Your task to perform on an android device: open chrome privacy settings Image 0: 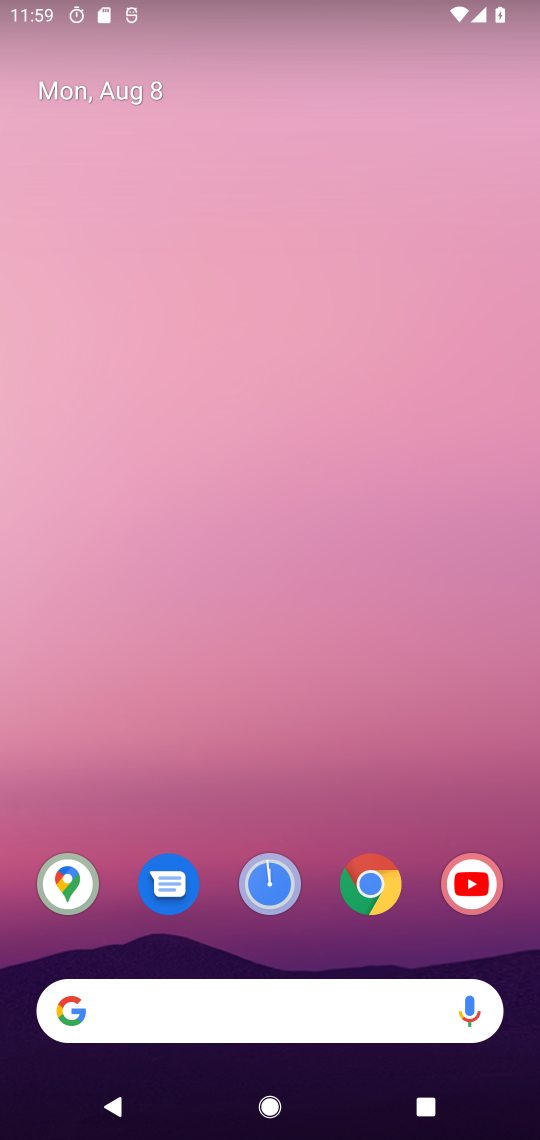
Step 0: click (376, 884)
Your task to perform on an android device: open chrome privacy settings Image 1: 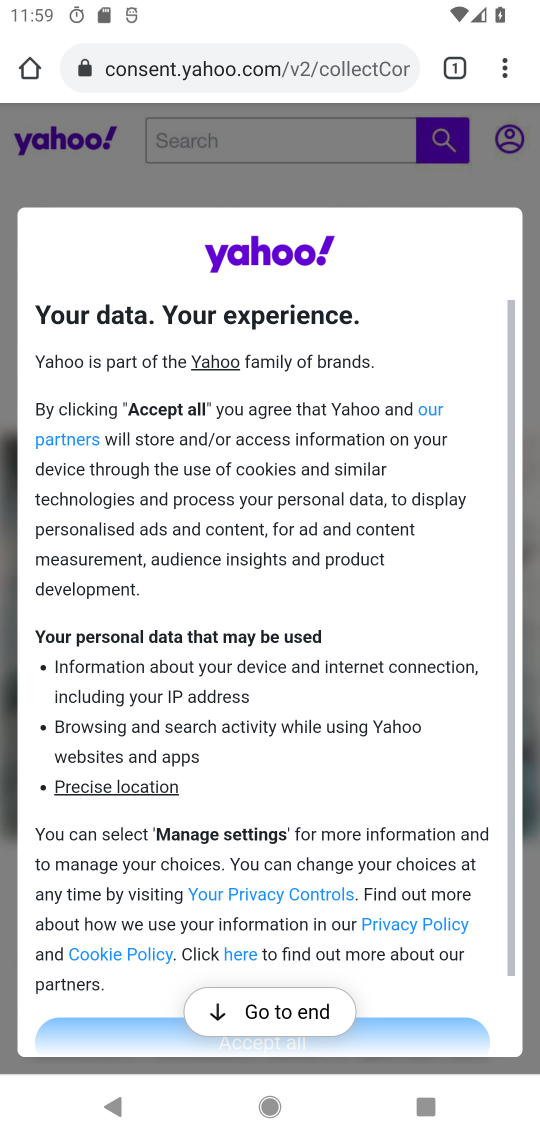
Step 1: click (502, 66)
Your task to perform on an android device: open chrome privacy settings Image 2: 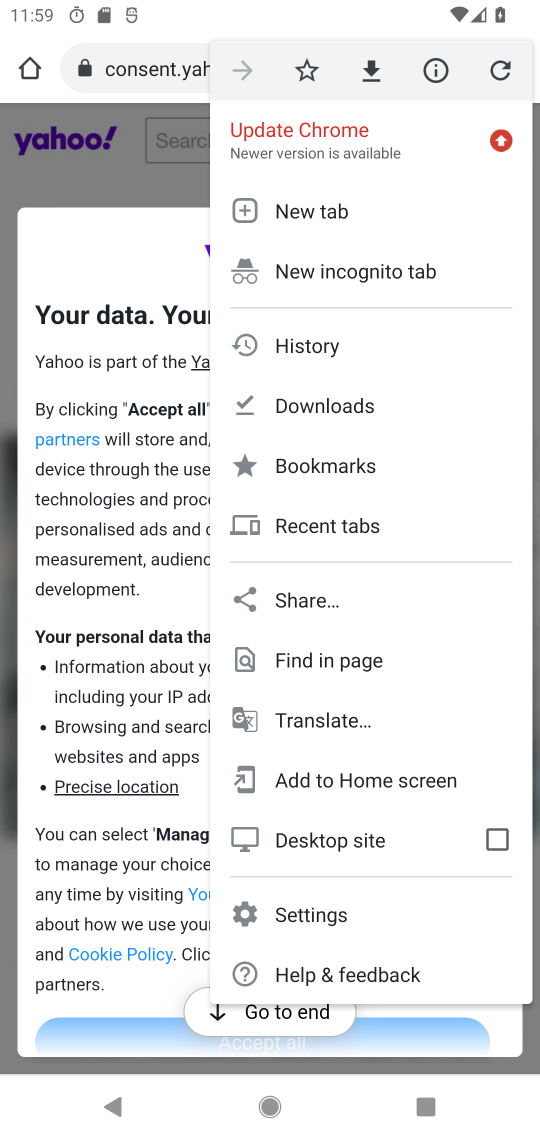
Step 2: click (302, 912)
Your task to perform on an android device: open chrome privacy settings Image 3: 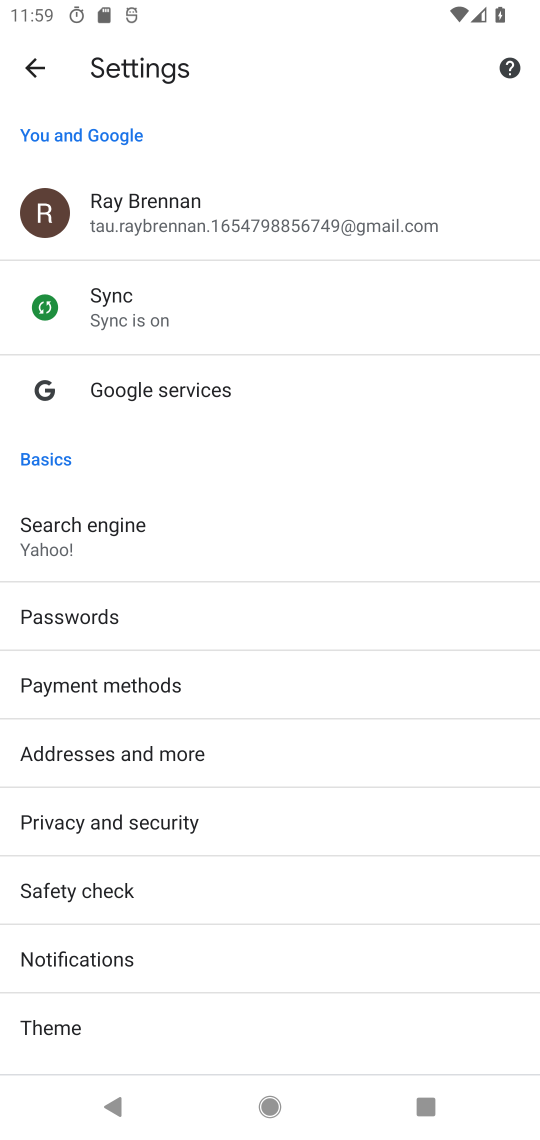
Step 3: drag from (185, 907) to (256, 416)
Your task to perform on an android device: open chrome privacy settings Image 4: 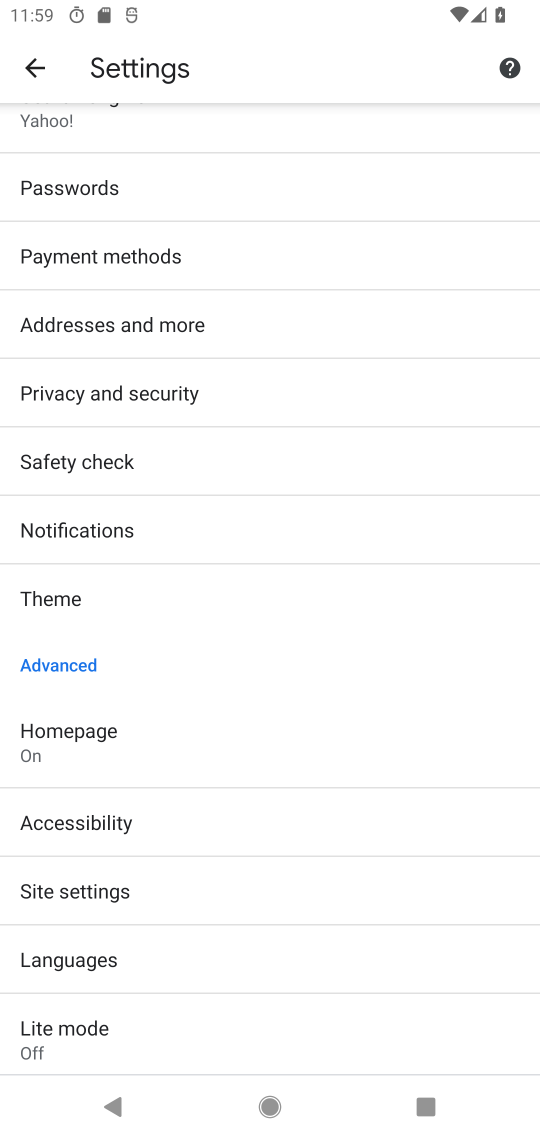
Step 4: drag from (163, 867) to (193, 22)
Your task to perform on an android device: open chrome privacy settings Image 5: 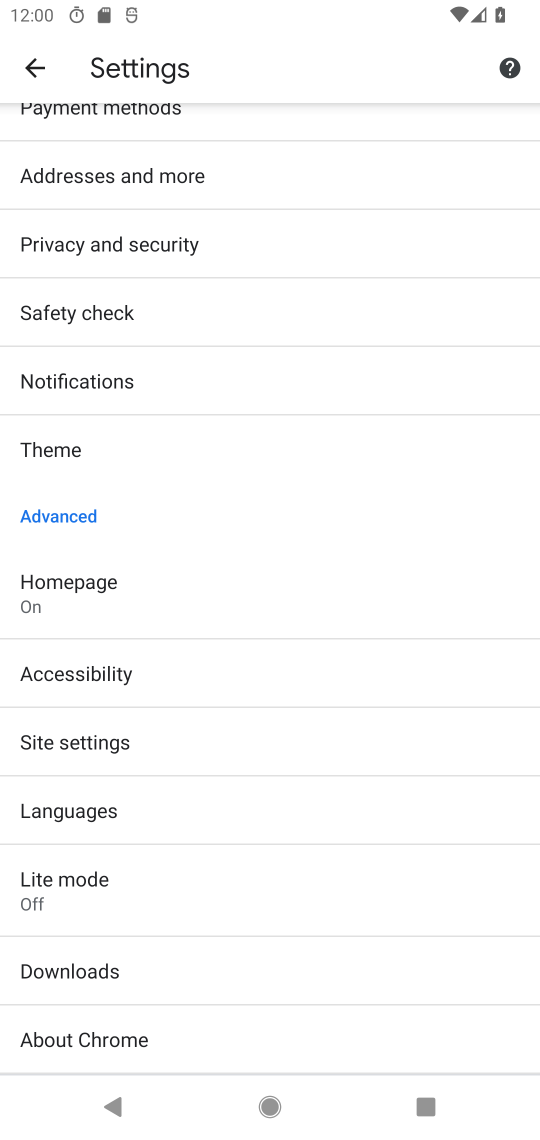
Step 5: drag from (213, 867) to (274, 270)
Your task to perform on an android device: open chrome privacy settings Image 6: 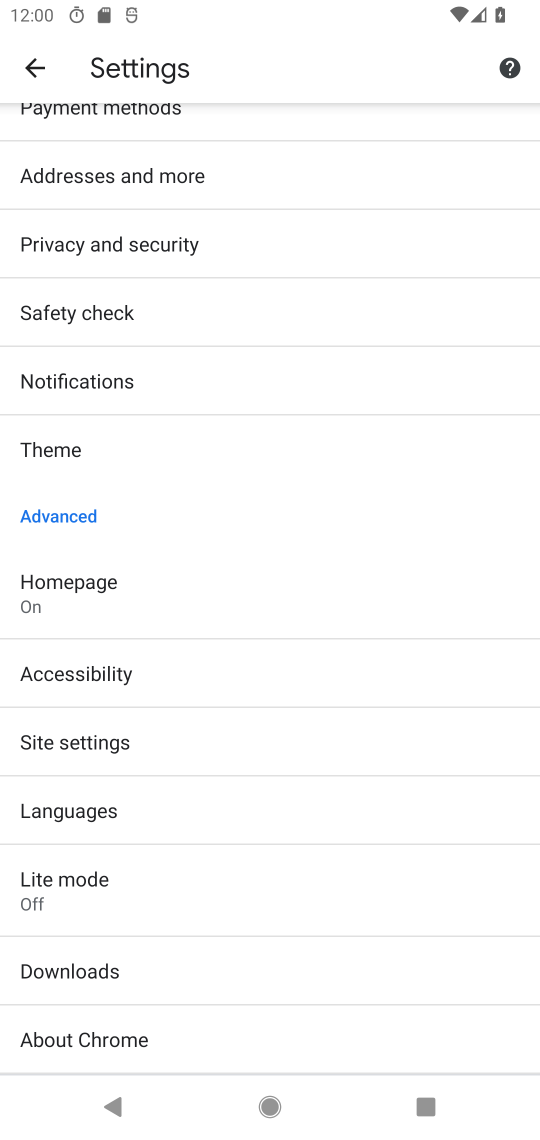
Step 6: drag from (172, 923) to (212, 360)
Your task to perform on an android device: open chrome privacy settings Image 7: 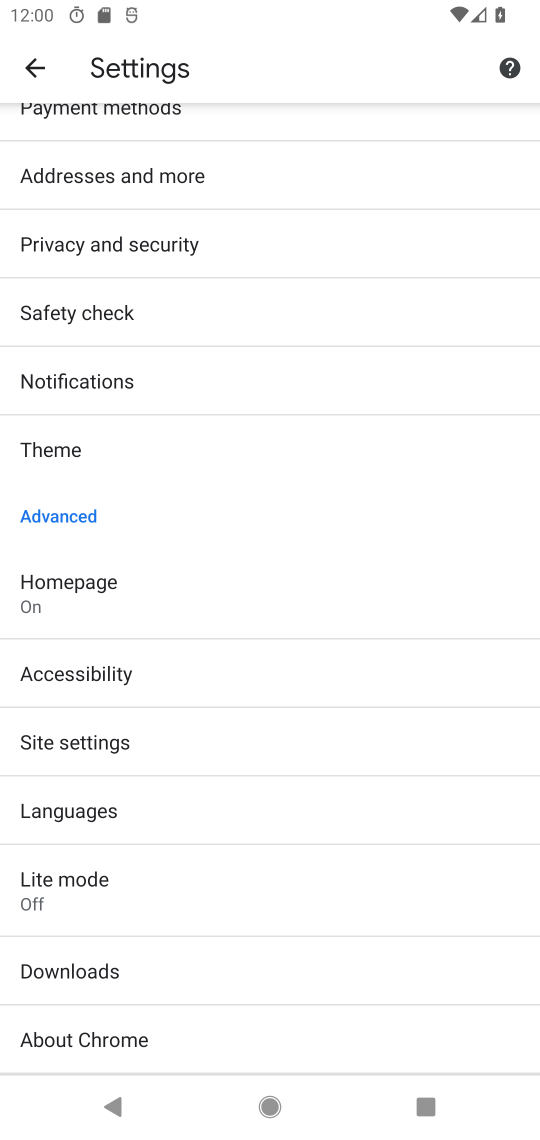
Step 7: click (161, 228)
Your task to perform on an android device: open chrome privacy settings Image 8: 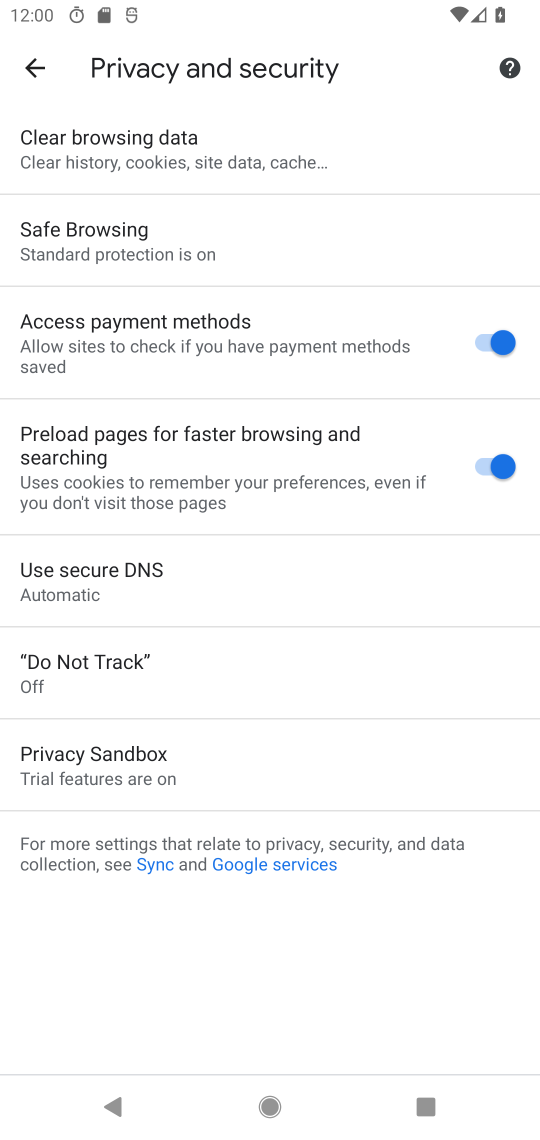
Step 8: task complete